Your task to perform on an android device: delete the emails in spam in the gmail app Image 0: 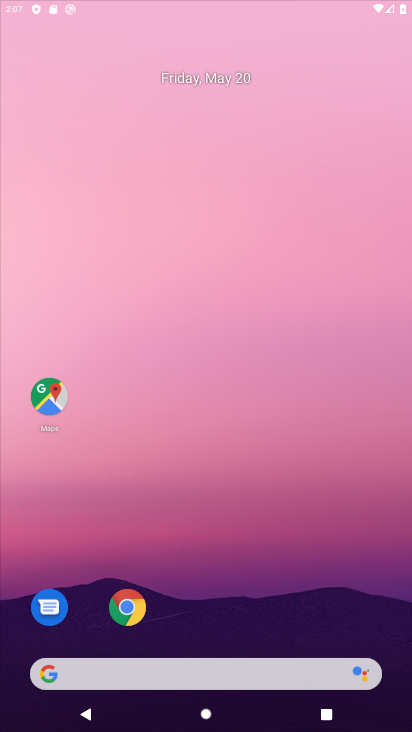
Step 0: drag from (300, 241) to (326, 81)
Your task to perform on an android device: delete the emails in spam in the gmail app Image 1: 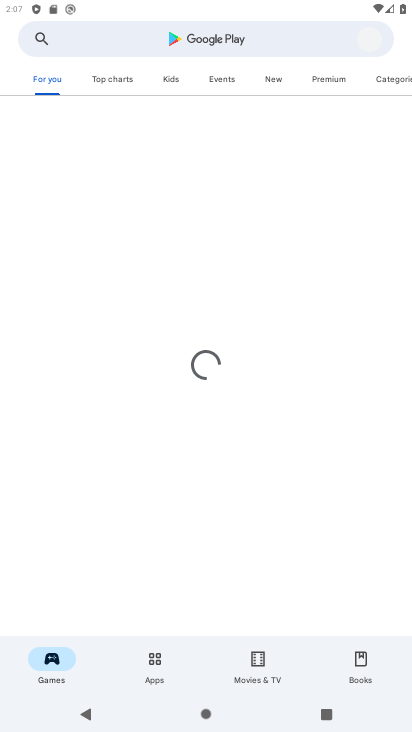
Step 1: press back button
Your task to perform on an android device: delete the emails in spam in the gmail app Image 2: 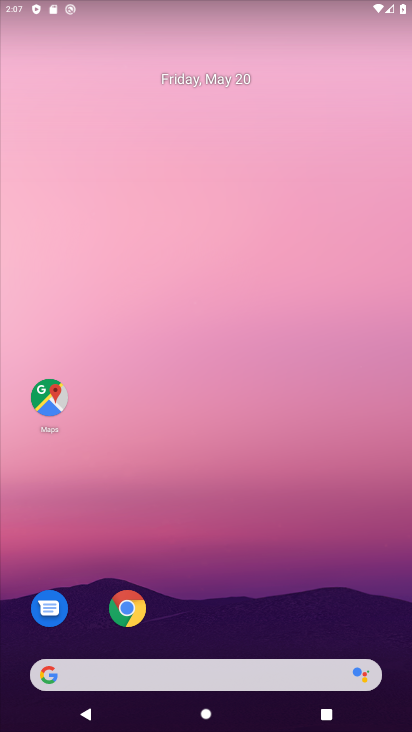
Step 2: drag from (223, 557) to (299, 127)
Your task to perform on an android device: delete the emails in spam in the gmail app Image 3: 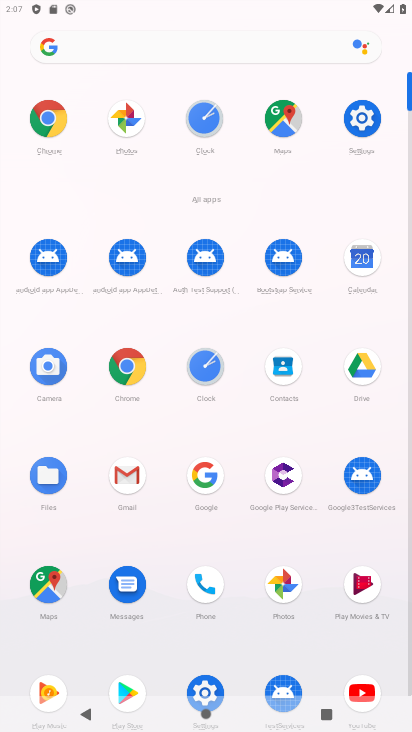
Step 3: click (124, 484)
Your task to perform on an android device: delete the emails in spam in the gmail app Image 4: 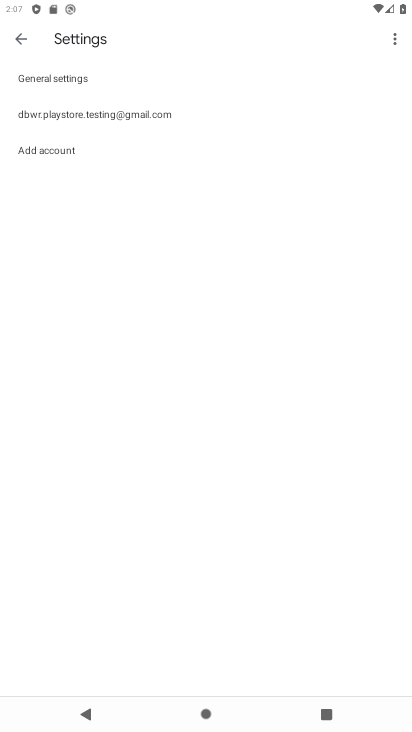
Step 4: click (21, 33)
Your task to perform on an android device: delete the emails in spam in the gmail app Image 5: 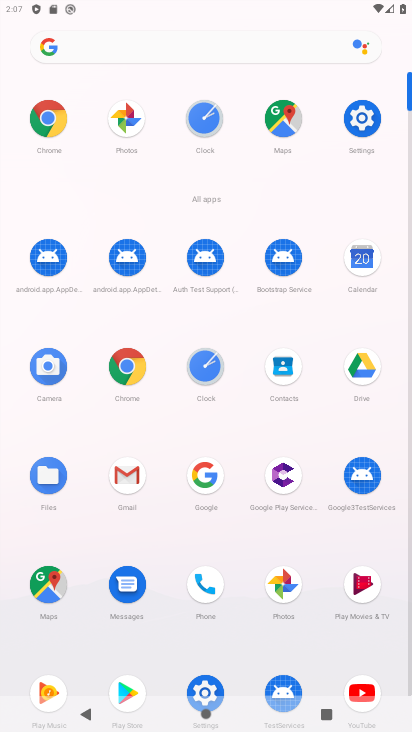
Step 5: click (132, 467)
Your task to perform on an android device: delete the emails in spam in the gmail app Image 6: 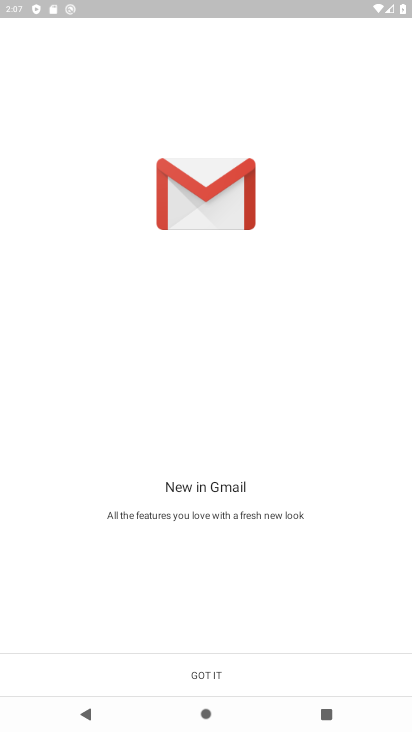
Step 6: click (210, 677)
Your task to perform on an android device: delete the emails in spam in the gmail app Image 7: 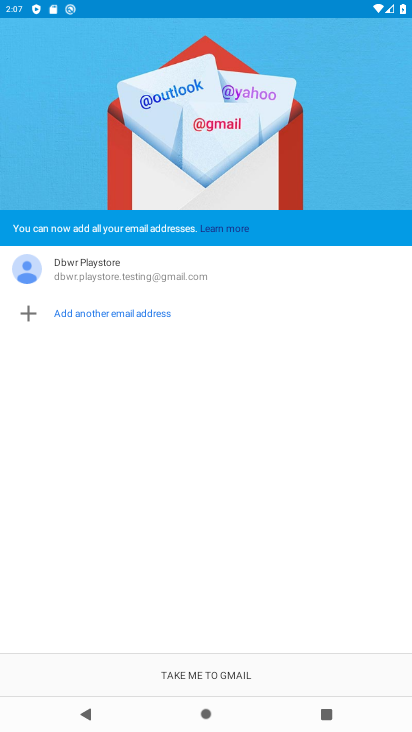
Step 7: click (206, 668)
Your task to perform on an android device: delete the emails in spam in the gmail app Image 8: 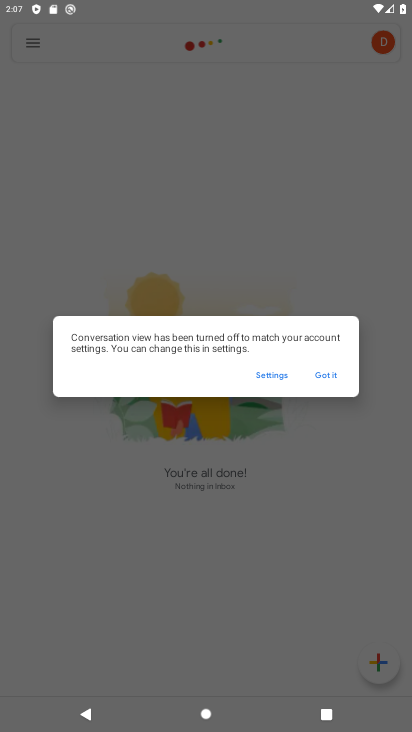
Step 8: click (321, 369)
Your task to perform on an android device: delete the emails in spam in the gmail app Image 9: 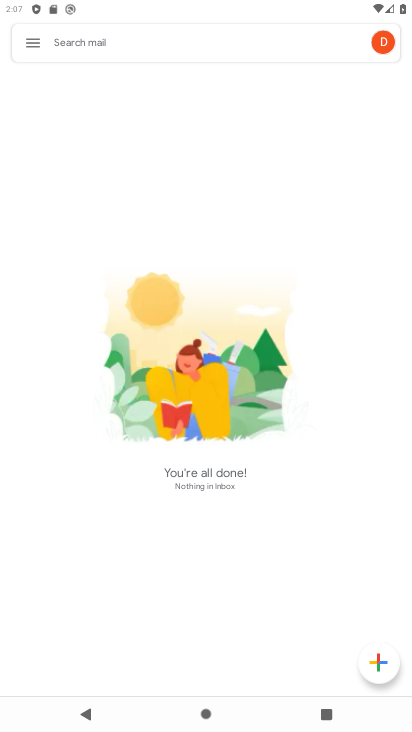
Step 9: click (28, 45)
Your task to perform on an android device: delete the emails in spam in the gmail app Image 10: 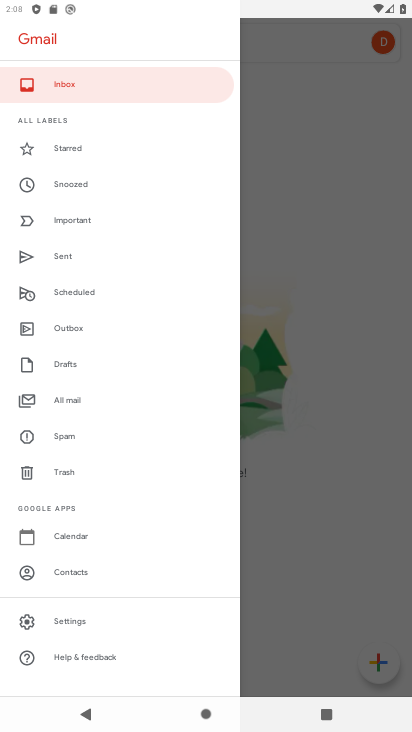
Step 10: click (80, 431)
Your task to perform on an android device: delete the emails in spam in the gmail app Image 11: 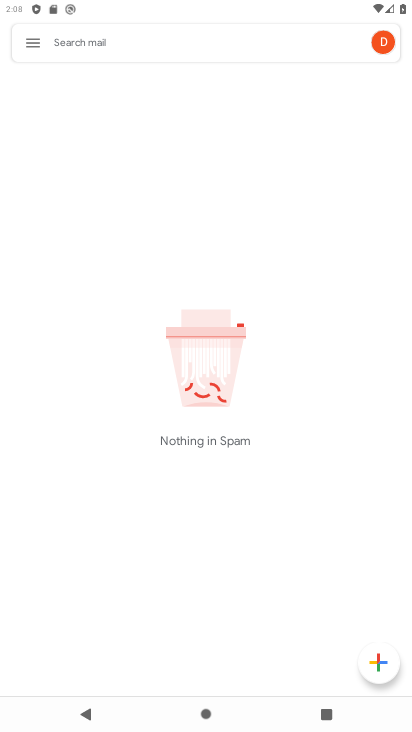
Step 11: task complete